Your task to perform on an android device: Open eBay Image 0: 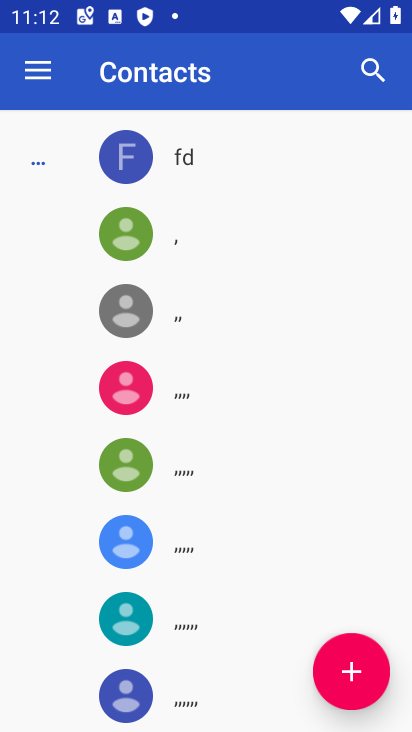
Step 0: press home button
Your task to perform on an android device: Open eBay Image 1: 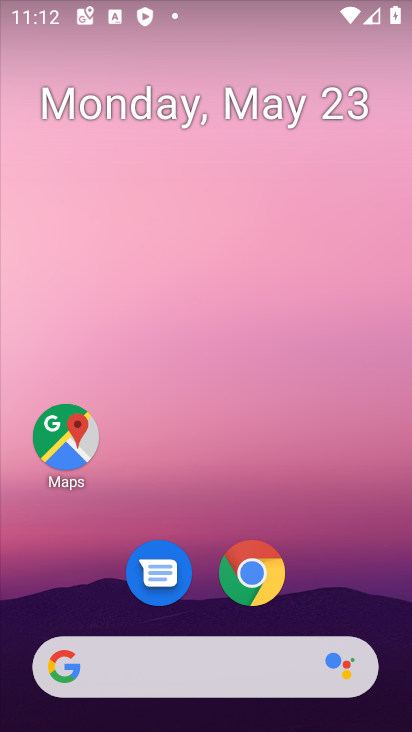
Step 1: drag from (192, 636) to (237, 153)
Your task to perform on an android device: Open eBay Image 2: 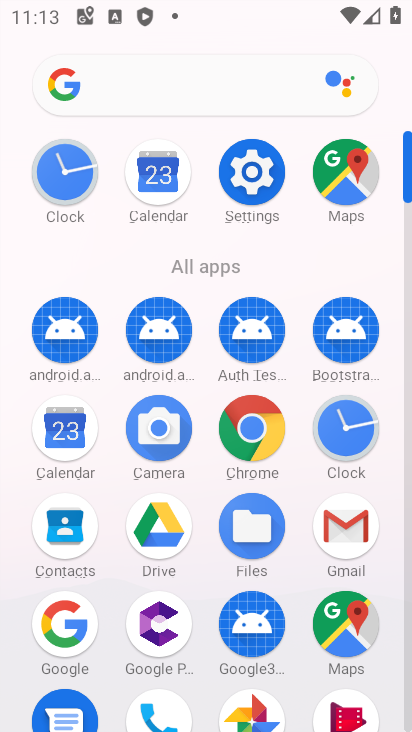
Step 2: click (253, 413)
Your task to perform on an android device: Open eBay Image 3: 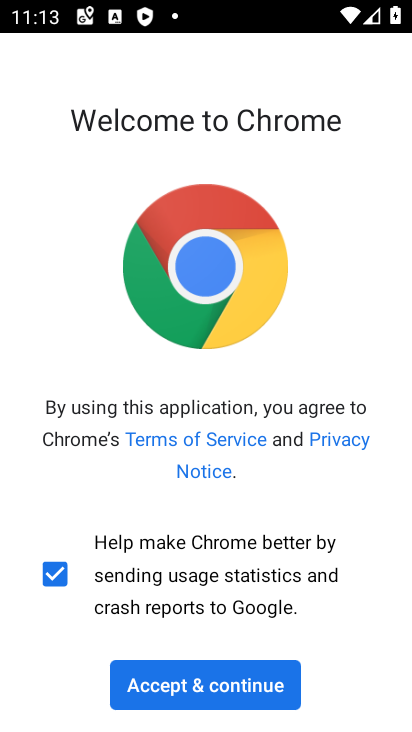
Step 3: click (233, 685)
Your task to perform on an android device: Open eBay Image 4: 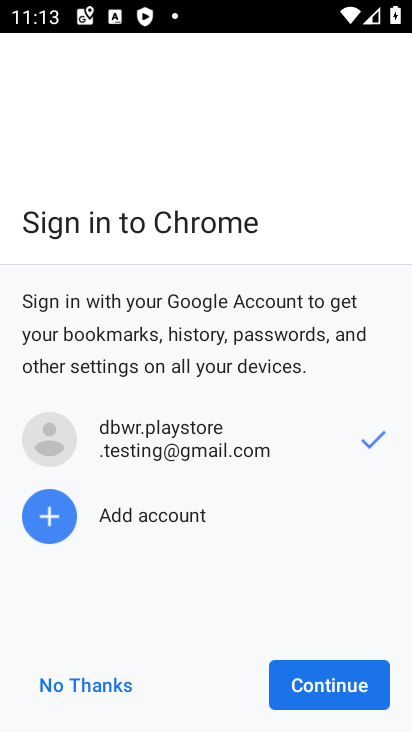
Step 4: click (301, 695)
Your task to perform on an android device: Open eBay Image 5: 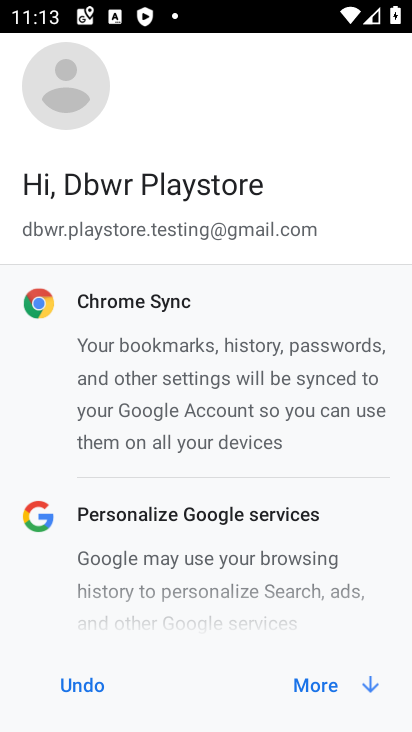
Step 5: click (301, 695)
Your task to perform on an android device: Open eBay Image 6: 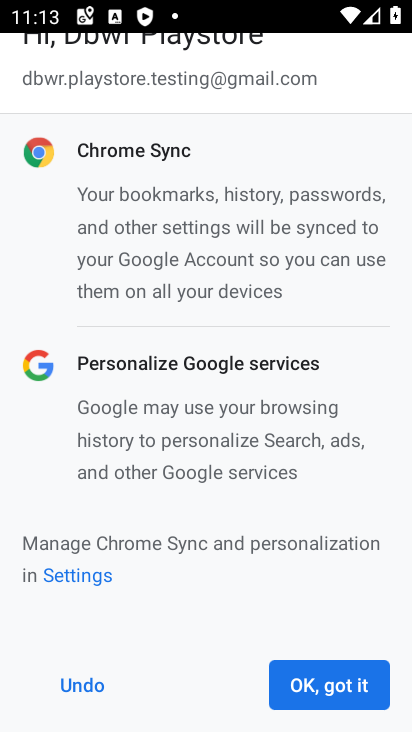
Step 6: click (301, 695)
Your task to perform on an android device: Open eBay Image 7: 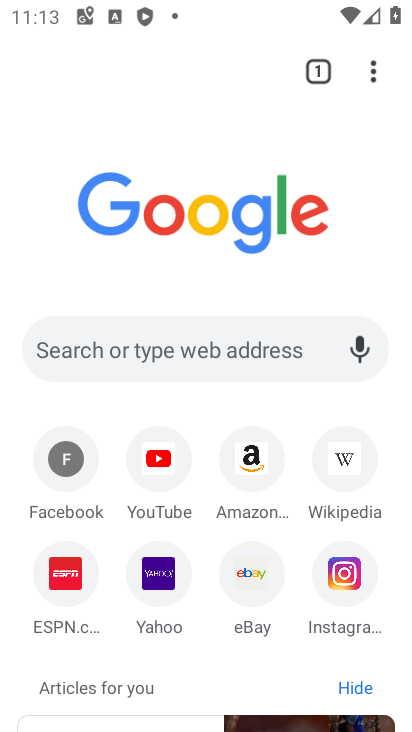
Step 7: click (259, 588)
Your task to perform on an android device: Open eBay Image 8: 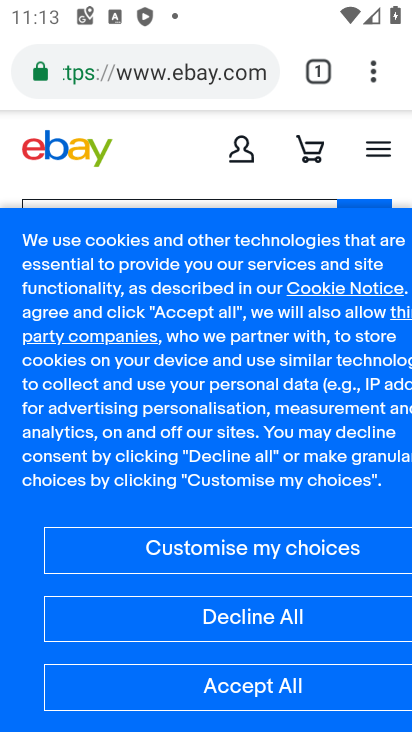
Step 8: task complete